Your task to perform on an android device: Open Youtube and go to the subscriptions tab Image 0: 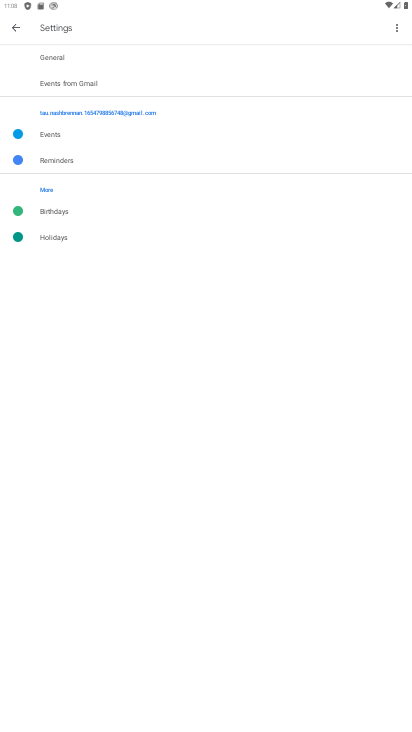
Step 0: press home button
Your task to perform on an android device: Open Youtube and go to the subscriptions tab Image 1: 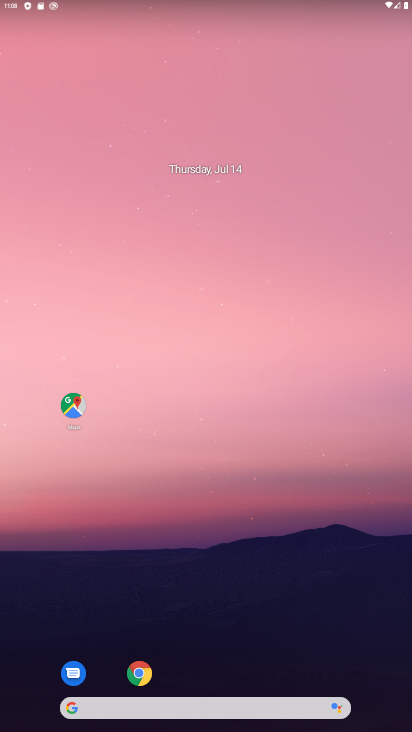
Step 1: drag from (299, 649) to (223, 88)
Your task to perform on an android device: Open Youtube and go to the subscriptions tab Image 2: 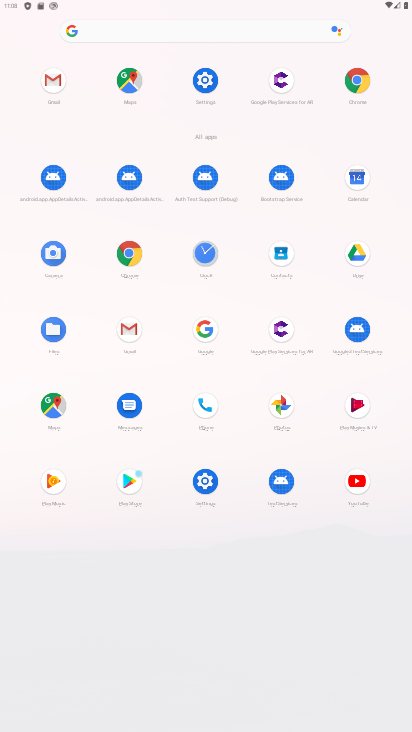
Step 2: click (361, 489)
Your task to perform on an android device: Open Youtube and go to the subscriptions tab Image 3: 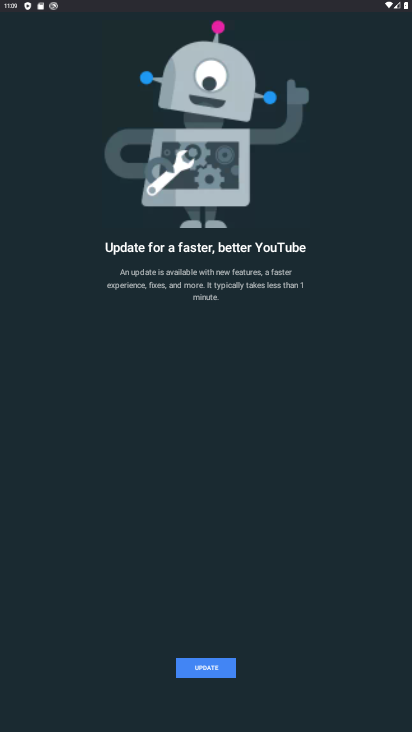
Step 3: task complete